Your task to perform on an android device: Open Google Image 0: 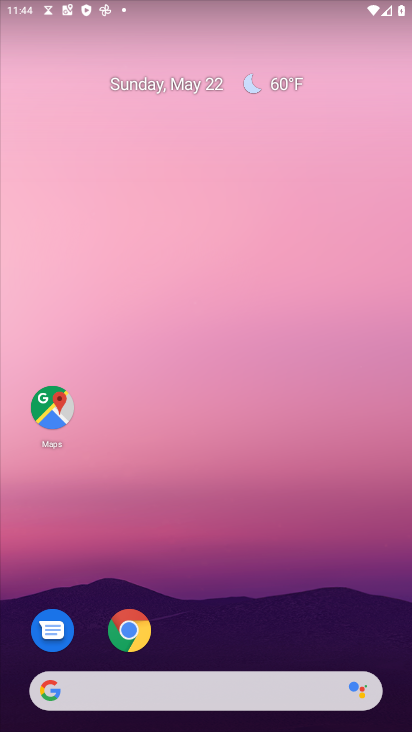
Step 0: drag from (243, 592) to (230, 84)
Your task to perform on an android device: Open Google Image 1: 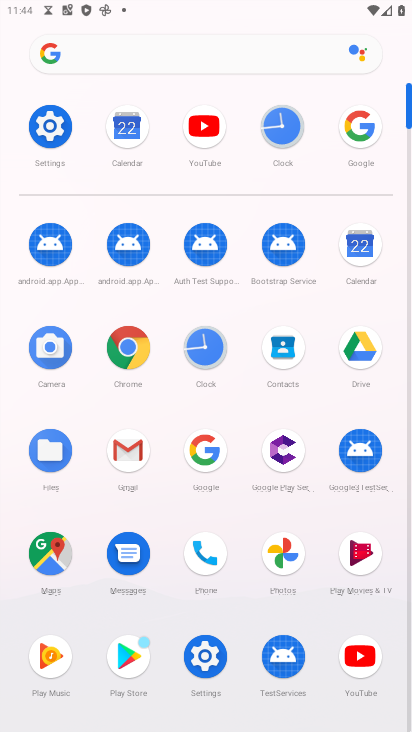
Step 1: click (199, 446)
Your task to perform on an android device: Open Google Image 2: 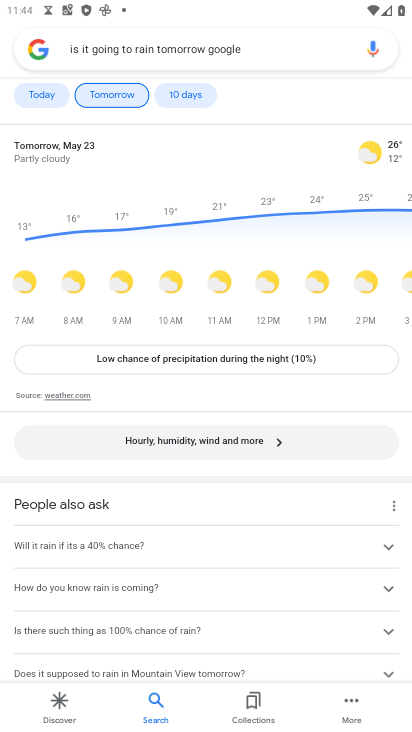
Step 2: task complete